Your task to perform on an android device: find photos in the google photos app Image 0: 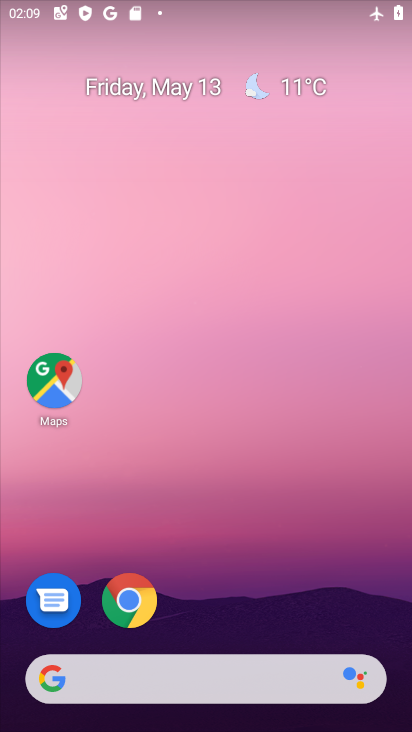
Step 0: drag from (224, 626) to (223, 161)
Your task to perform on an android device: find photos in the google photos app Image 1: 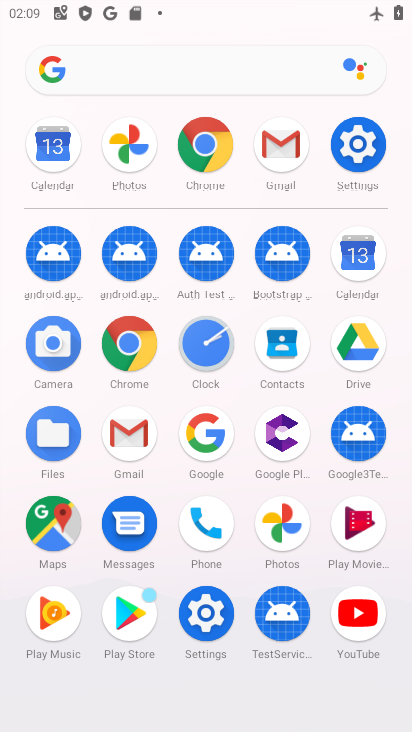
Step 1: click (273, 529)
Your task to perform on an android device: find photos in the google photos app Image 2: 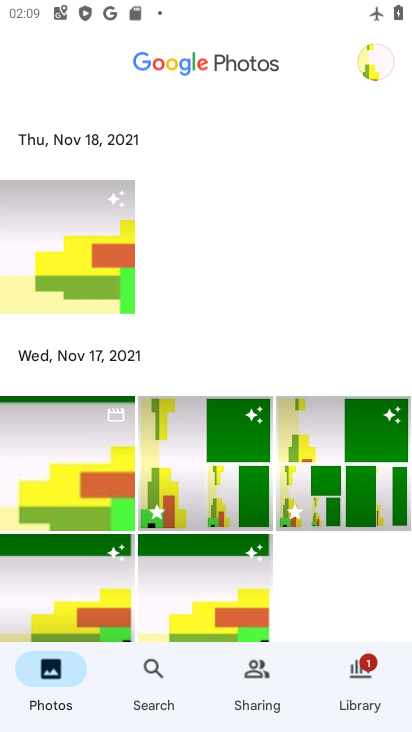
Step 2: click (187, 476)
Your task to perform on an android device: find photos in the google photos app Image 3: 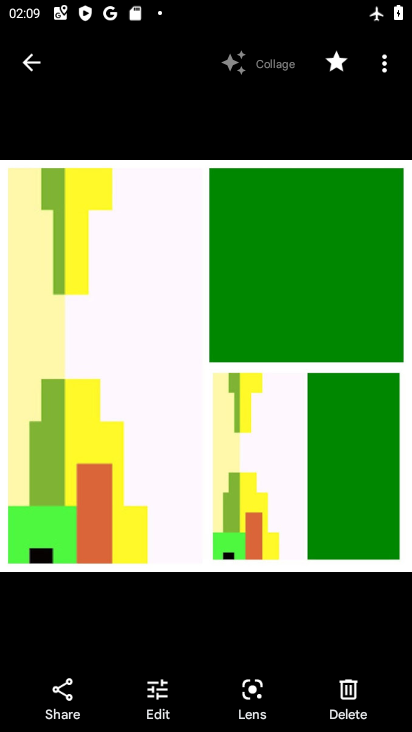
Step 3: task complete